Your task to perform on an android device: Open notification settings Image 0: 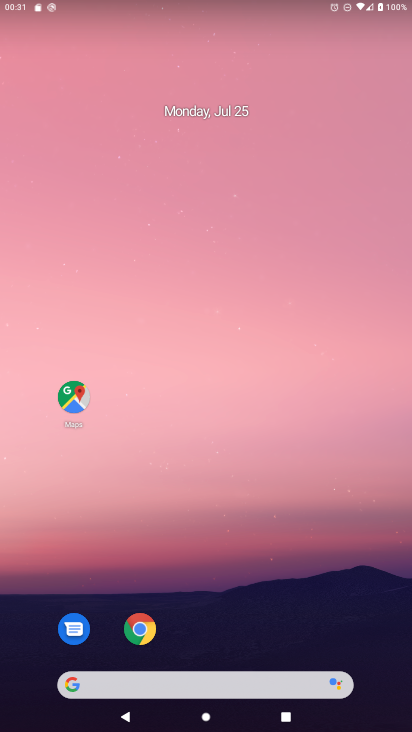
Step 0: drag from (199, 624) to (252, 134)
Your task to perform on an android device: Open notification settings Image 1: 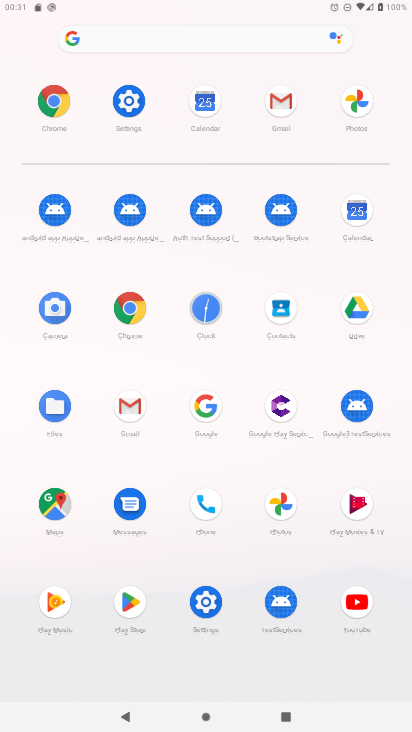
Step 1: click (199, 601)
Your task to perform on an android device: Open notification settings Image 2: 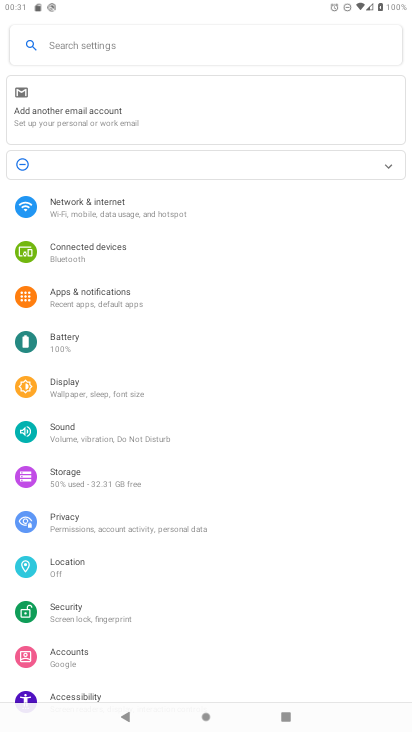
Step 2: click (99, 286)
Your task to perform on an android device: Open notification settings Image 3: 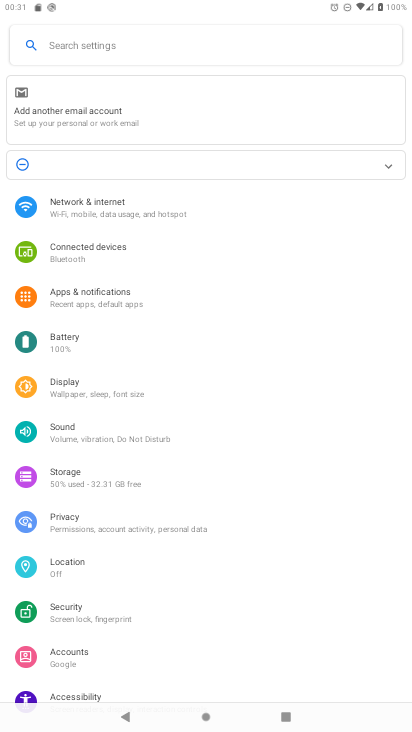
Step 3: click (99, 286)
Your task to perform on an android device: Open notification settings Image 4: 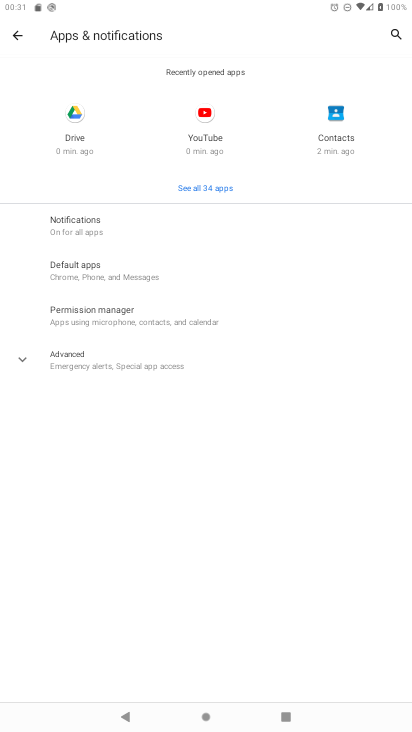
Step 4: click (107, 217)
Your task to perform on an android device: Open notification settings Image 5: 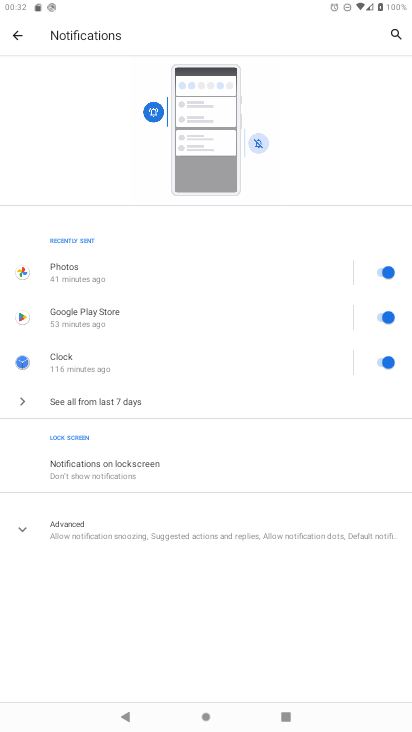
Step 5: click (94, 530)
Your task to perform on an android device: Open notification settings Image 6: 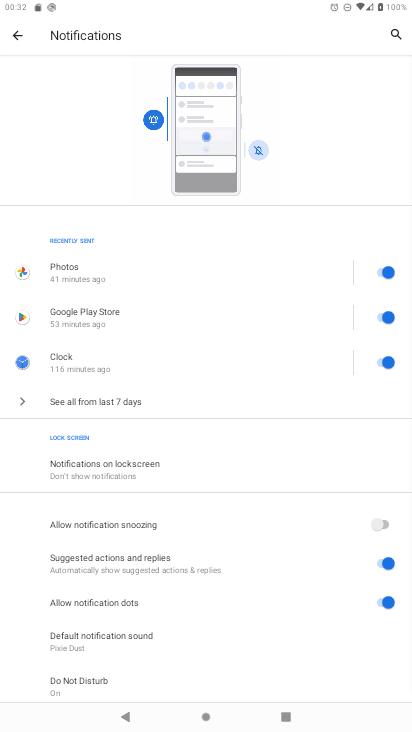
Step 6: task complete